Your task to perform on an android device: snooze an email in the gmail app Image 0: 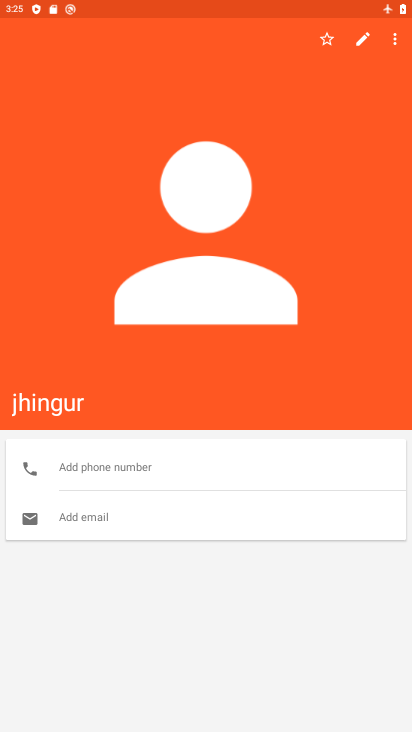
Step 0: press home button
Your task to perform on an android device: snooze an email in the gmail app Image 1: 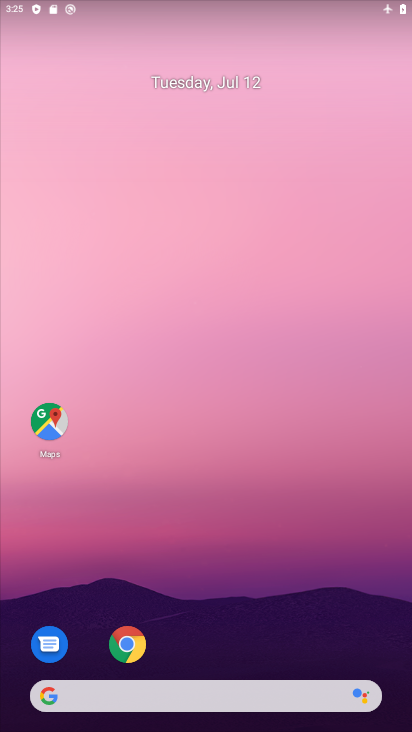
Step 1: drag from (270, 625) to (229, 99)
Your task to perform on an android device: snooze an email in the gmail app Image 2: 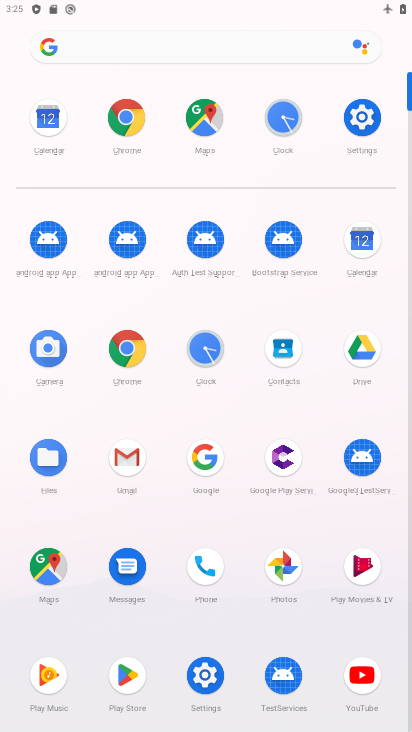
Step 2: click (124, 458)
Your task to perform on an android device: snooze an email in the gmail app Image 3: 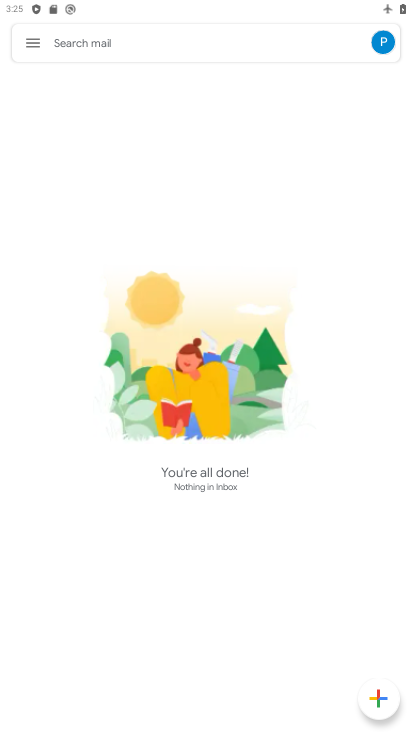
Step 3: click (27, 40)
Your task to perform on an android device: snooze an email in the gmail app Image 4: 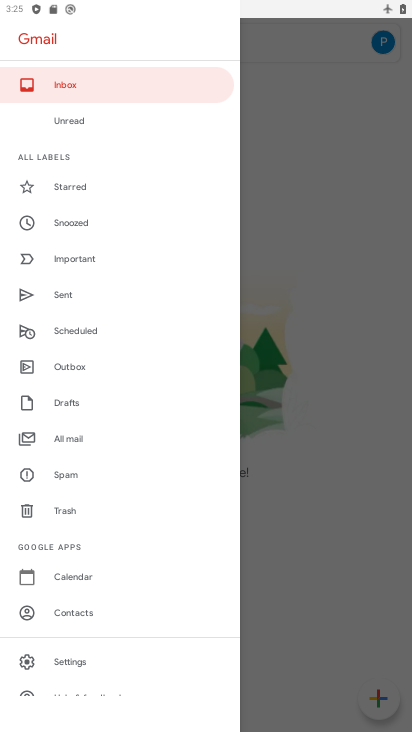
Step 4: click (71, 428)
Your task to perform on an android device: snooze an email in the gmail app Image 5: 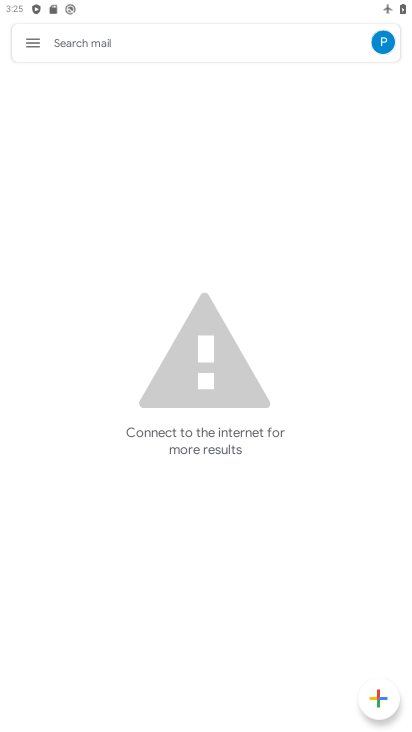
Step 5: task complete